Your task to perform on an android device: open wifi settings Image 0: 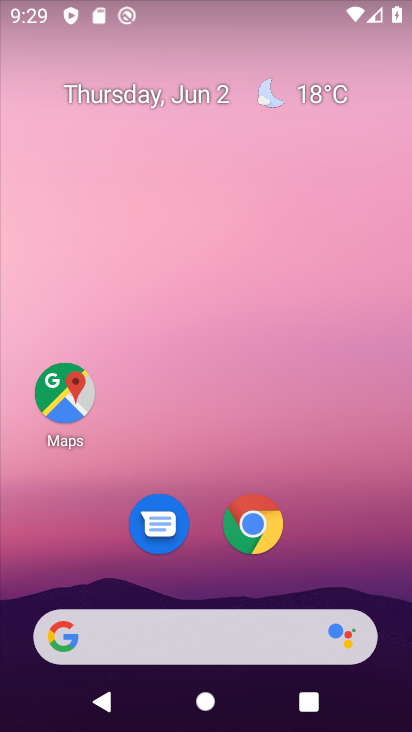
Step 0: drag from (229, 457) to (147, 48)
Your task to perform on an android device: open wifi settings Image 1: 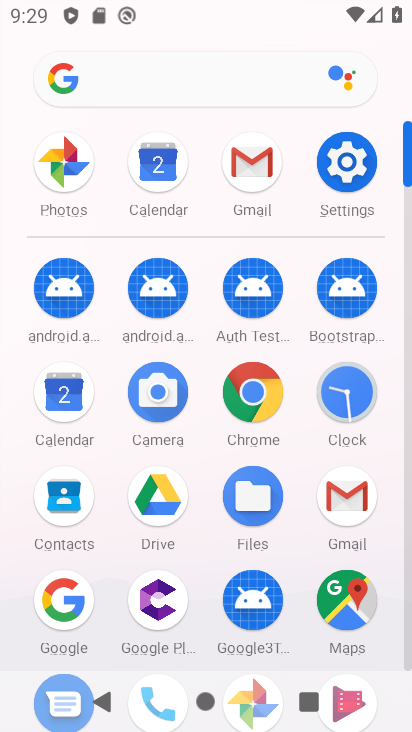
Step 1: click (343, 162)
Your task to perform on an android device: open wifi settings Image 2: 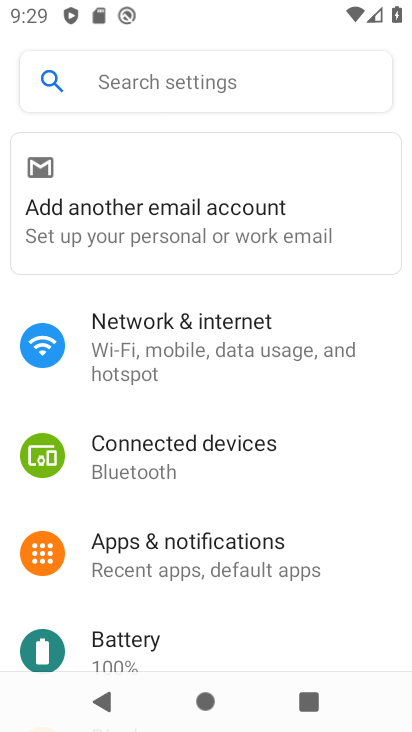
Step 2: click (232, 327)
Your task to perform on an android device: open wifi settings Image 3: 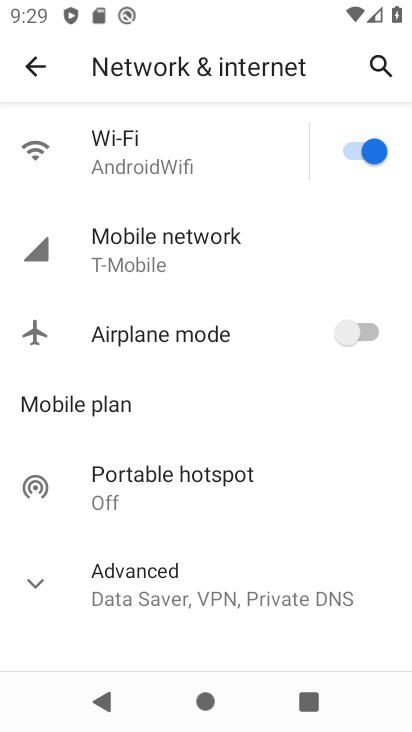
Step 3: click (172, 138)
Your task to perform on an android device: open wifi settings Image 4: 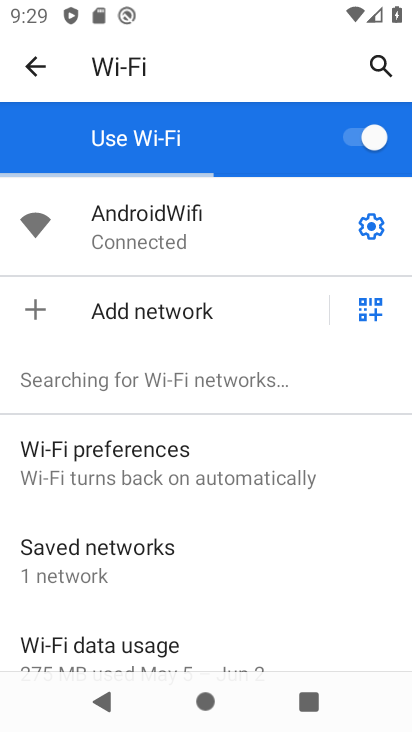
Step 4: task complete